Your task to perform on an android device: Open calendar and show me the first week of next month Image 0: 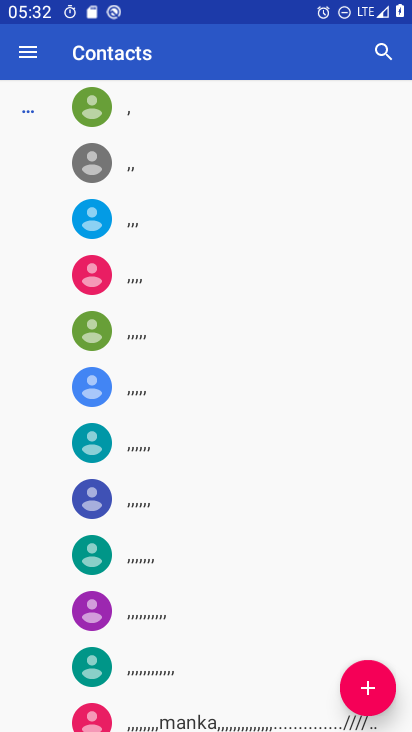
Step 0: press home button
Your task to perform on an android device: Open calendar and show me the first week of next month Image 1: 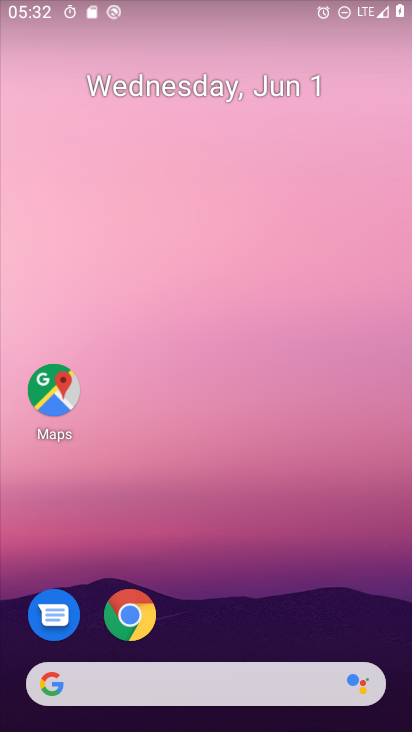
Step 1: drag from (268, 444) to (326, 5)
Your task to perform on an android device: Open calendar and show me the first week of next month Image 2: 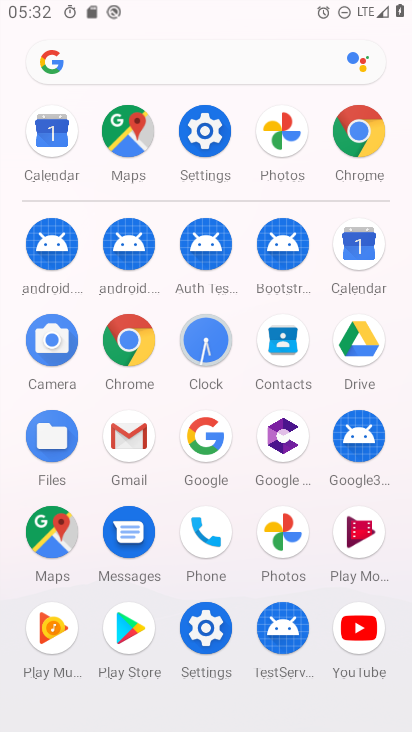
Step 2: click (362, 261)
Your task to perform on an android device: Open calendar and show me the first week of next month Image 3: 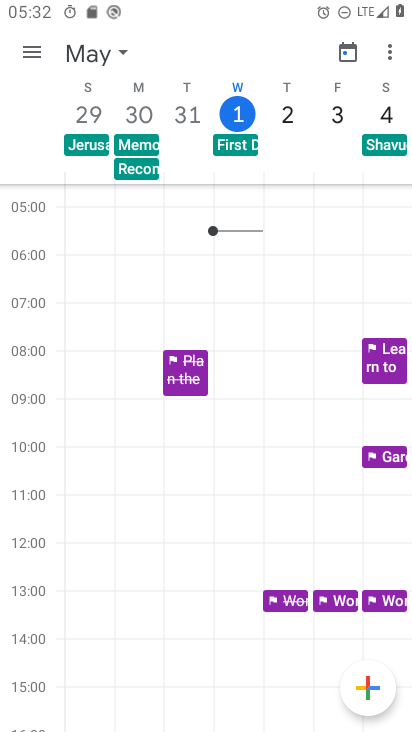
Step 3: click (362, 261)
Your task to perform on an android device: Open calendar and show me the first week of next month Image 4: 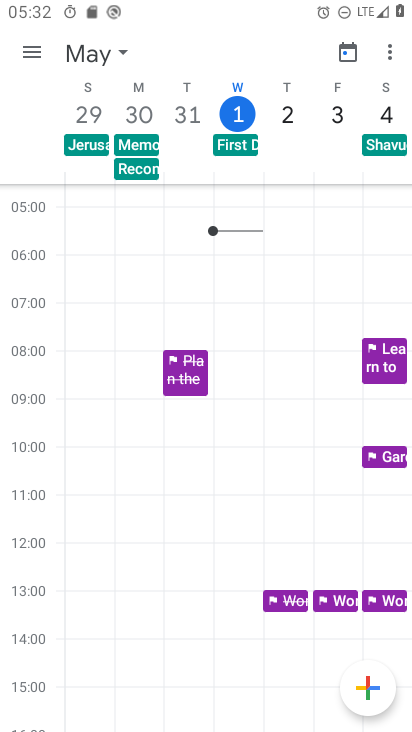
Step 4: click (120, 55)
Your task to perform on an android device: Open calendar and show me the first week of next month Image 5: 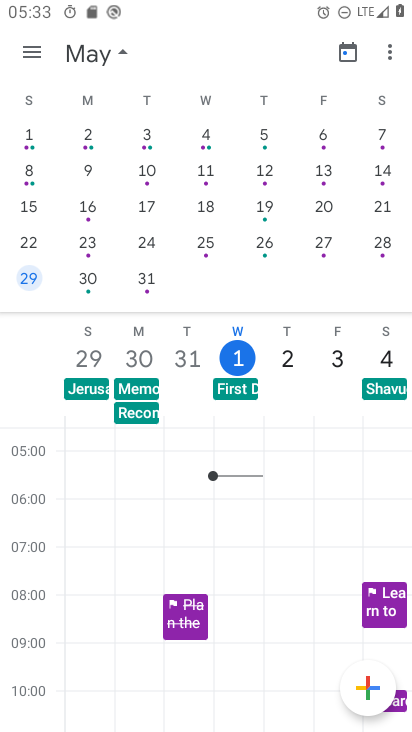
Step 5: task complete